Your task to perform on an android device: Open the web browser Image 0: 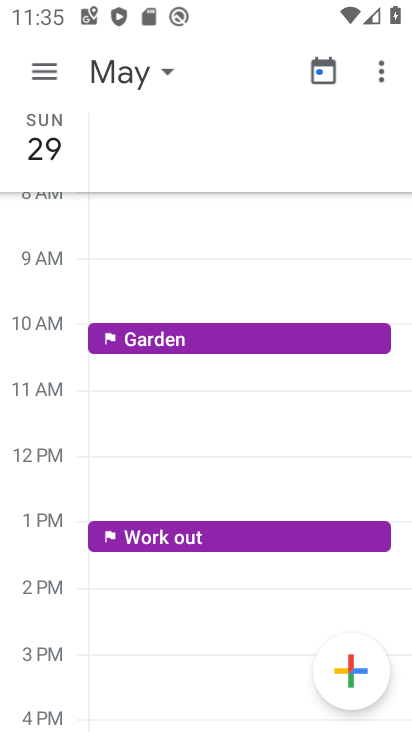
Step 0: press home button
Your task to perform on an android device: Open the web browser Image 1: 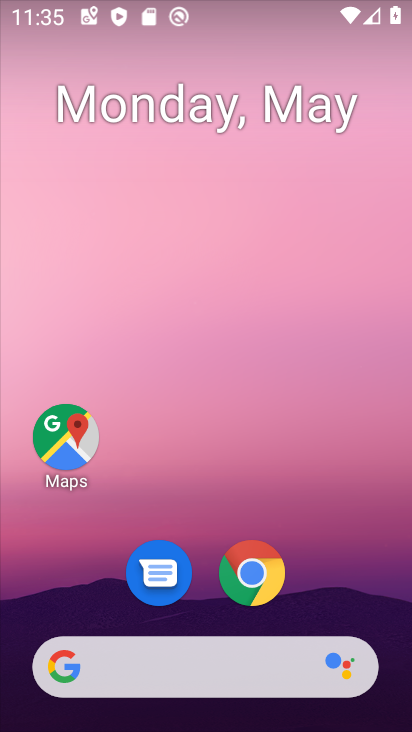
Step 1: drag from (361, 620) to (274, 246)
Your task to perform on an android device: Open the web browser Image 2: 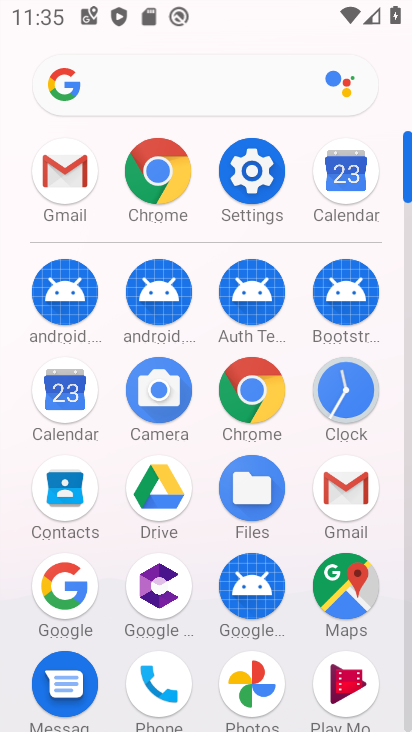
Step 2: click (163, 196)
Your task to perform on an android device: Open the web browser Image 3: 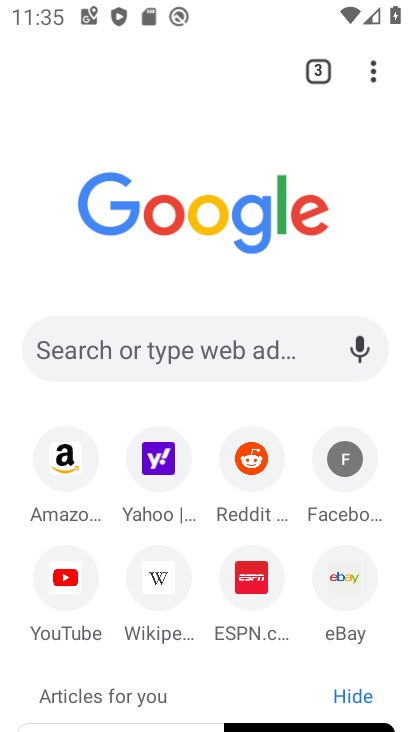
Step 3: task complete